Your task to perform on an android device: turn off wifi Image 0: 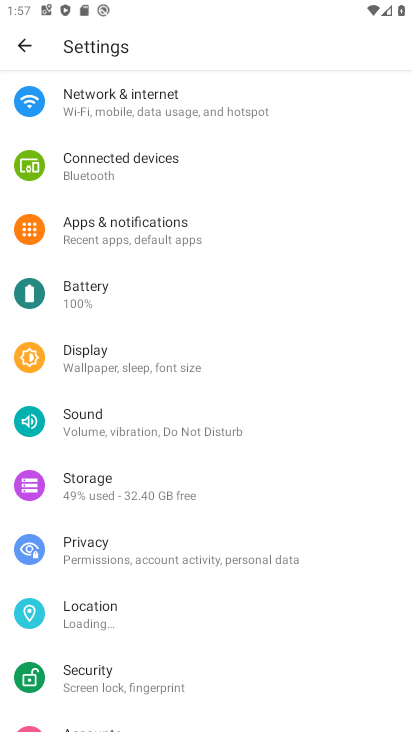
Step 0: drag from (184, 132) to (175, 545)
Your task to perform on an android device: turn off wifi Image 1: 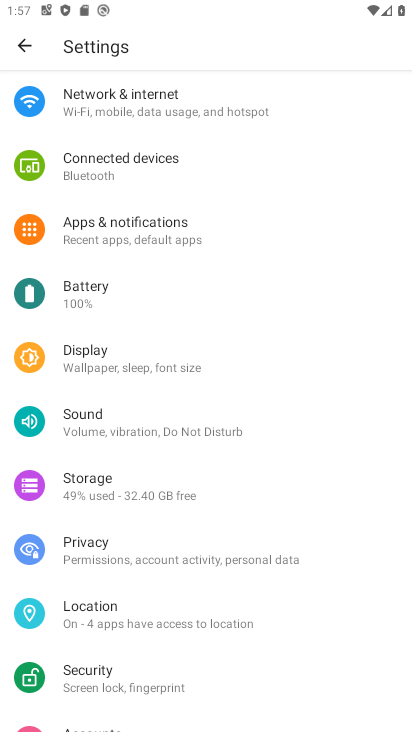
Step 1: click (104, 108)
Your task to perform on an android device: turn off wifi Image 2: 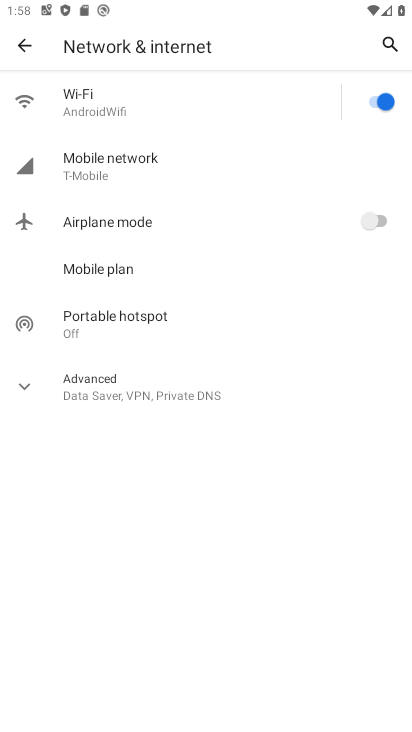
Step 2: click (375, 101)
Your task to perform on an android device: turn off wifi Image 3: 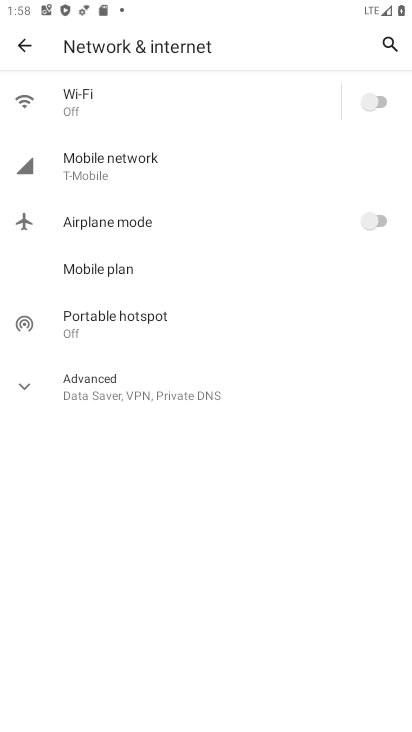
Step 3: task complete